Your task to perform on an android device: turn off notifications settings in the gmail app Image 0: 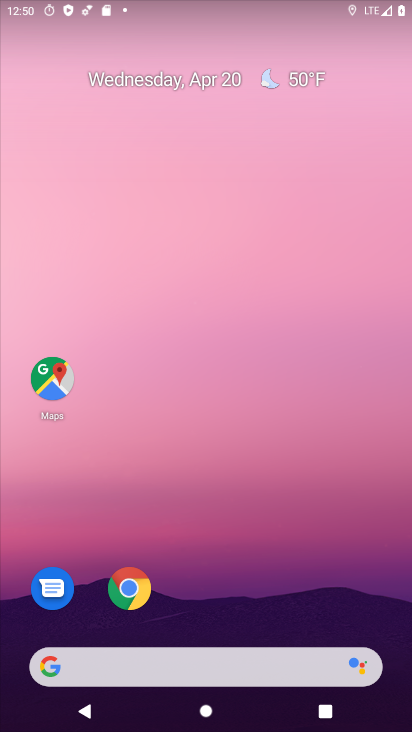
Step 0: drag from (181, 630) to (189, 24)
Your task to perform on an android device: turn off notifications settings in the gmail app Image 1: 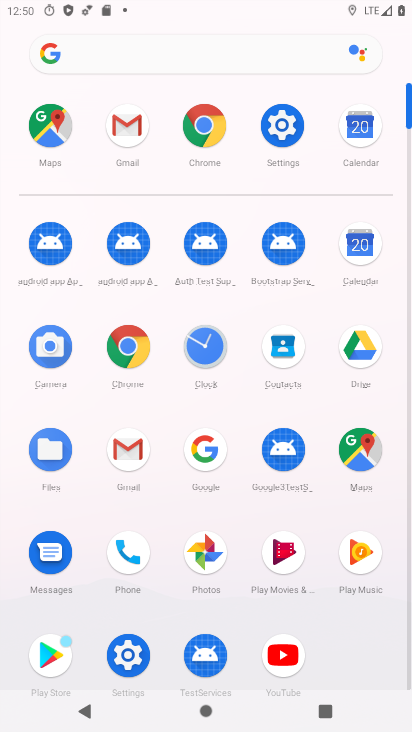
Step 1: click (122, 447)
Your task to perform on an android device: turn off notifications settings in the gmail app Image 2: 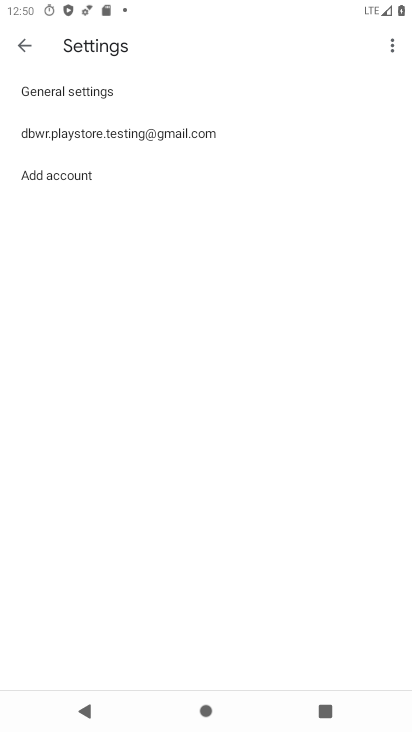
Step 2: click (49, 93)
Your task to perform on an android device: turn off notifications settings in the gmail app Image 3: 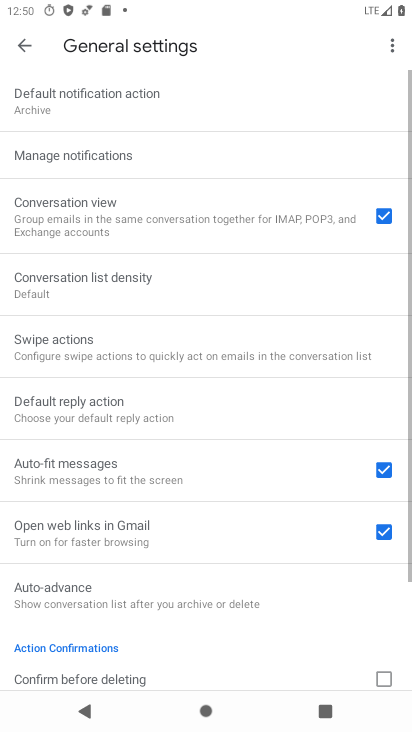
Step 3: click (72, 150)
Your task to perform on an android device: turn off notifications settings in the gmail app Image 4: 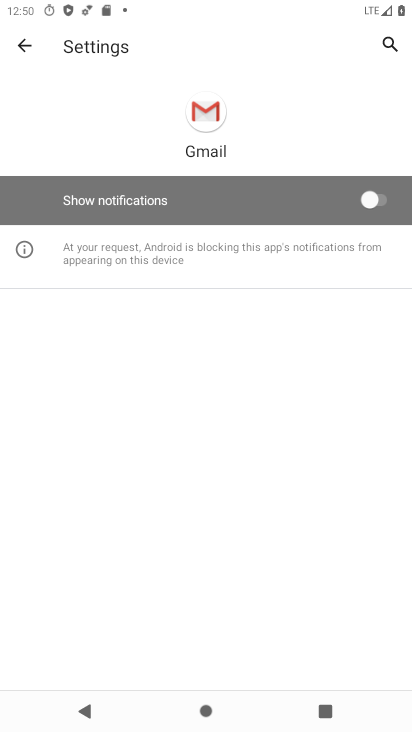
Step 4: click (387, 188)
Your task to perform on an android device: turn off notifications settings in the gmail app Image 5: 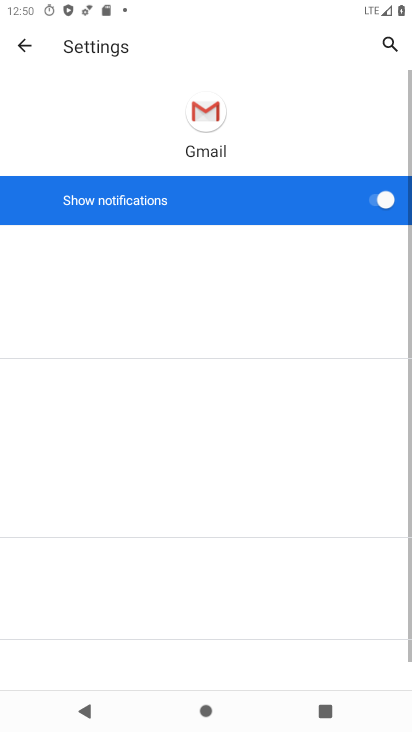
Step 5: task complete